Your task to perform on an android device: Open settings Image 0: 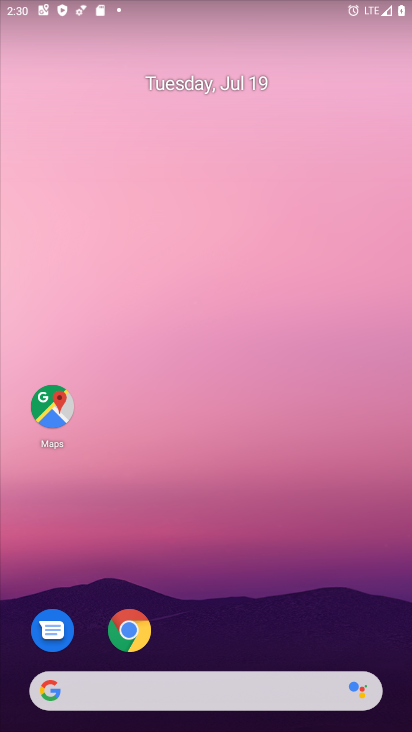
Step 0: press home button
Your task to perform on an android device: Open settings Image 1: 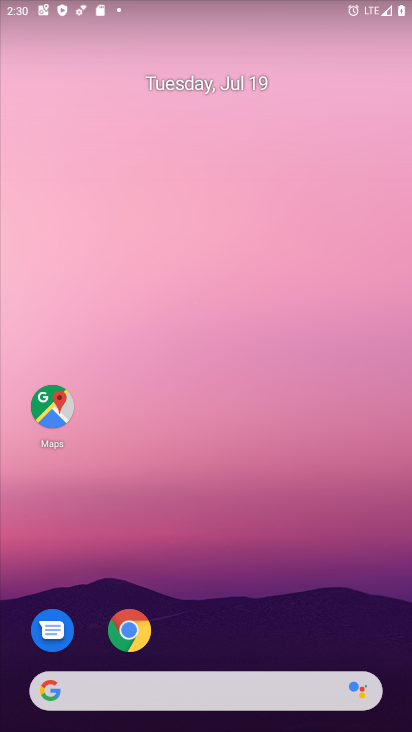
Step 1: drag from (213, 658) to (290, 53)
Your task to perform on an android device: Open settings Image 2: 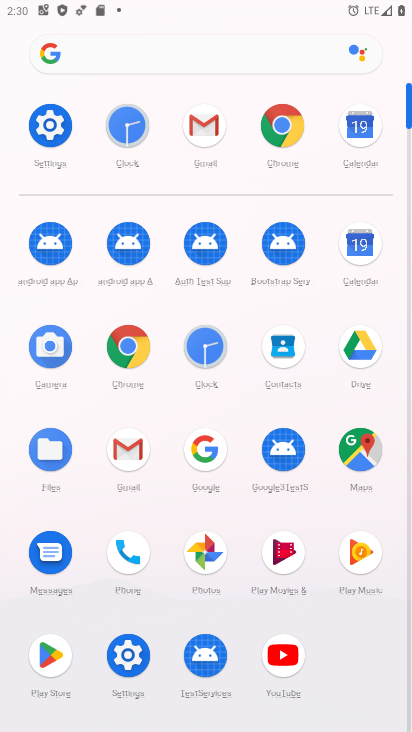
Step 2: click (44, 122)
Your task to perform on an android device: Open settings Image 3: 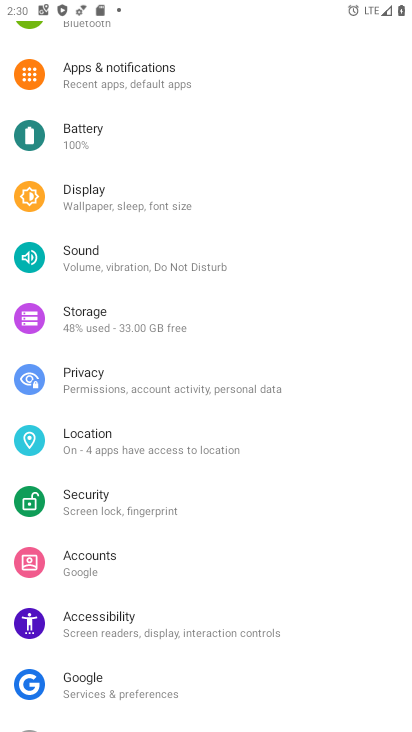
Step 3: task complete